Your task to perform on an android device: Open Wikipedia Image 0: 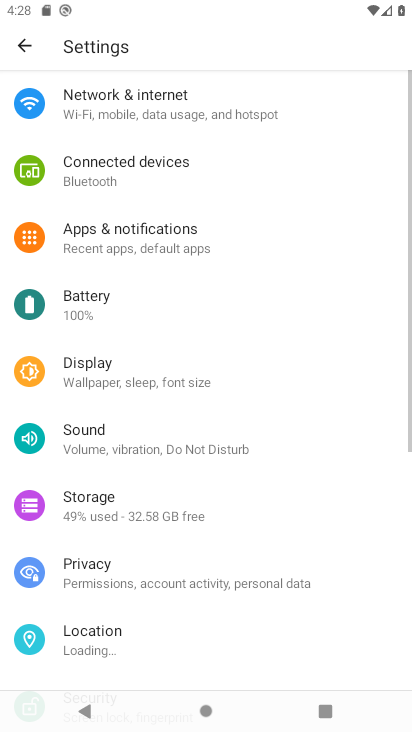
Step 0: press home button
Your task to perform on an android device: Open Wikipedia Image 1: 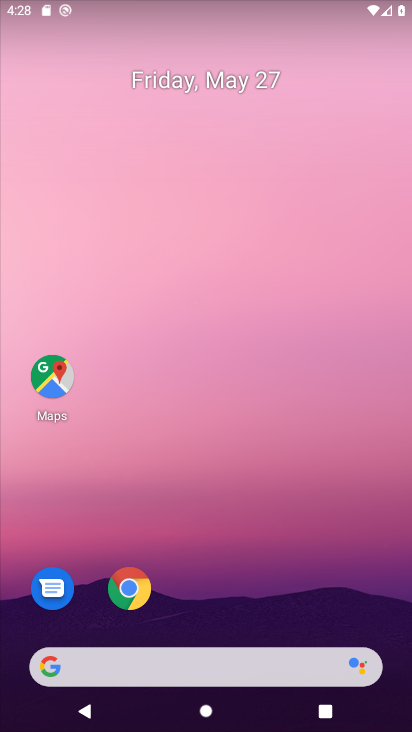
Step 1: drag from (148, 728) to (186, 253)
Your task to perform on an android device: Open Wikipedia Image 2: 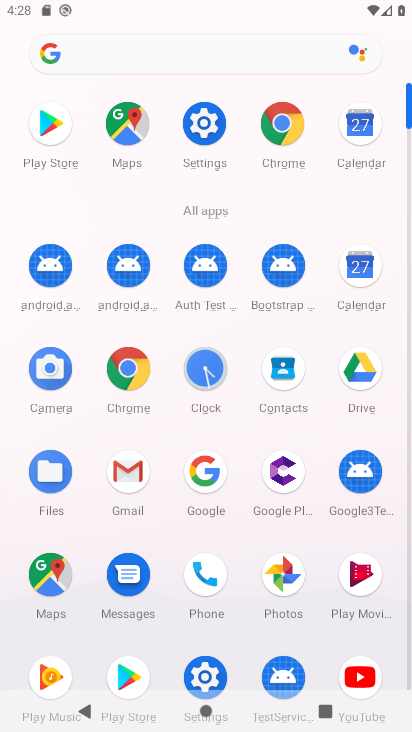
Step 2: click (114, 380)
Your task to perform on an android device: Open Wikipedia Image 3: 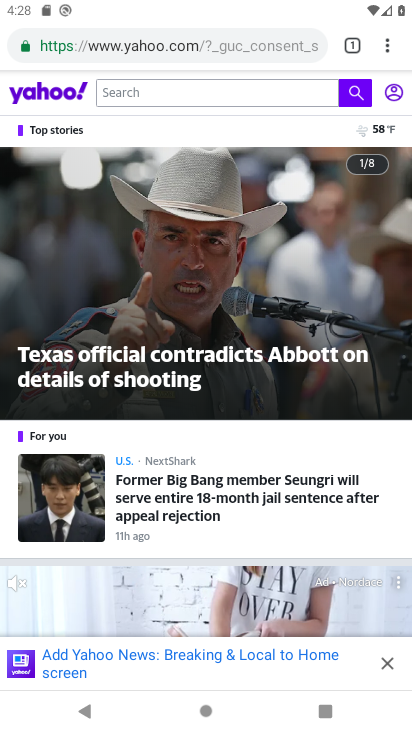
Step 3: click (353, 50)
Your task to perform on an android device: Open Wikipedia Image 4: 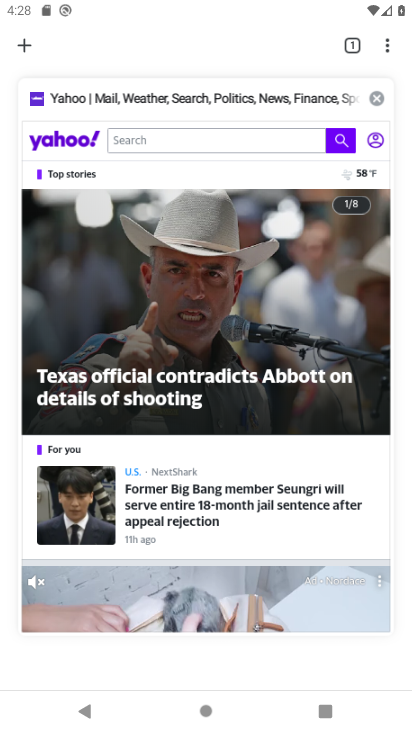
Step 4: click (378, 97)
Your task to perform on an android device: Open Wikipedia Image 5: 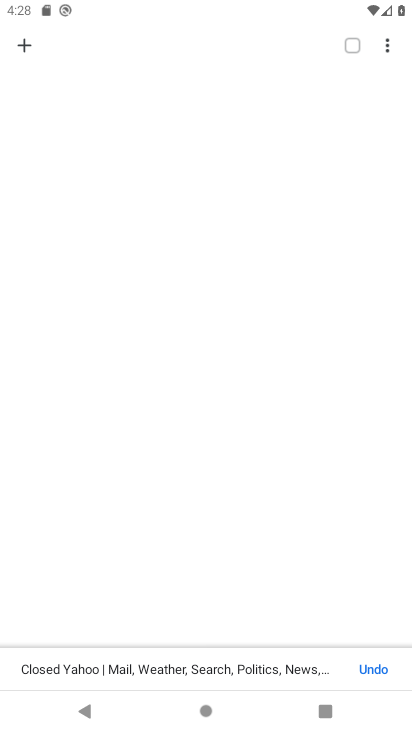
Step 5: click (23, 48)
Your task to perform on an android device: Open Wikipedia Image 6: 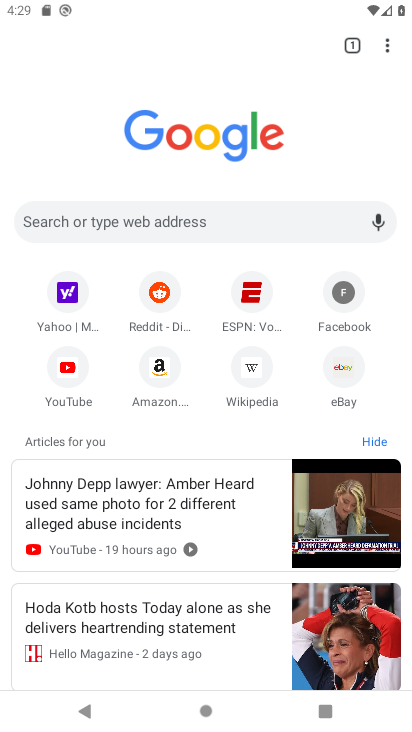
Step 6: click (254, 383)
Your task to perform on an android device: Open Wikipedia Image 7: 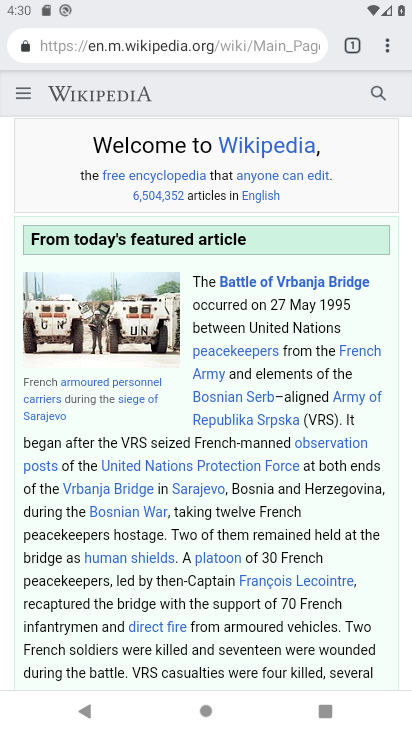
Step 7: task complete